Your task to perform on an android device: Open settings on Google Maps Image 0: 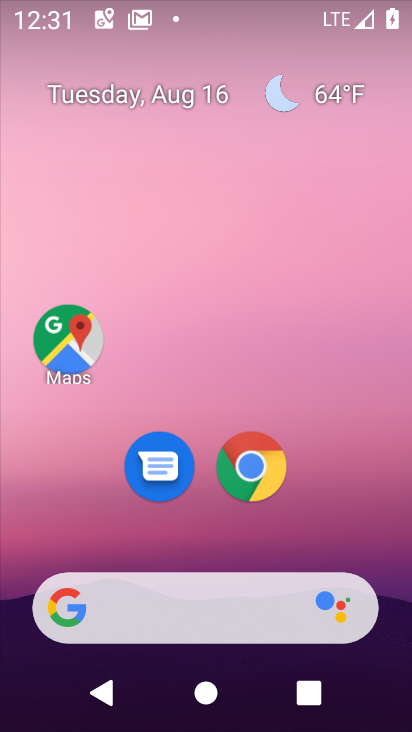
Step 0: drag from (205, 594) to (197, 136)
Your task to perform on an android device: Open settings on Google Maps Image 1: 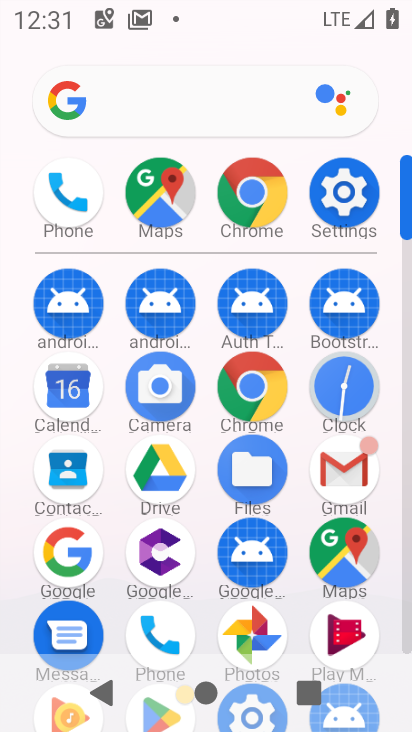
Step 1: click (341, 541)
Your task to perform on an android device: Open settings on Google Maps Image 2: 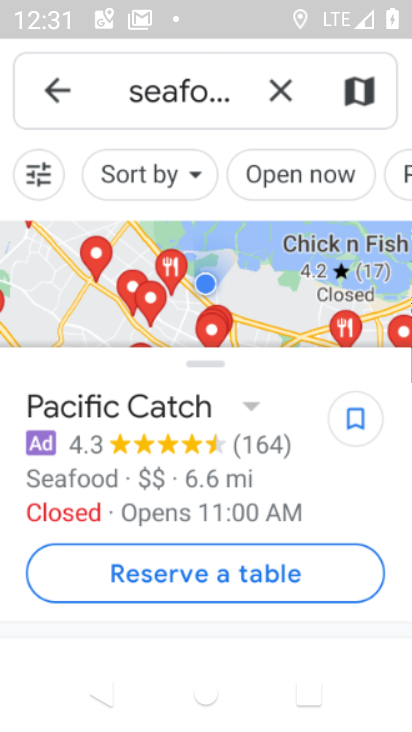
Step 2: click (48, 81)
Your task to perform on an android device: Open settings on Google Maps Image 3: 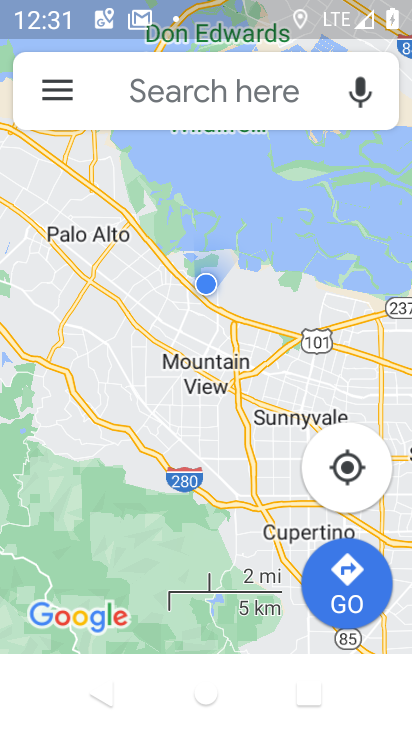
Step 3: click (48, 79)
Your task to perform on an android device: Open settings on Google Maps Image 4: 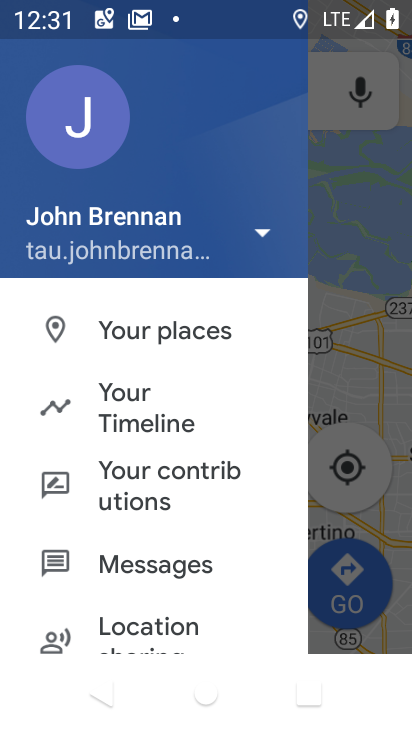
Step 4: drag from (162, 540) to (177, 281)
Your task to perform on an android device: Open settings on Google Maps Image 5: 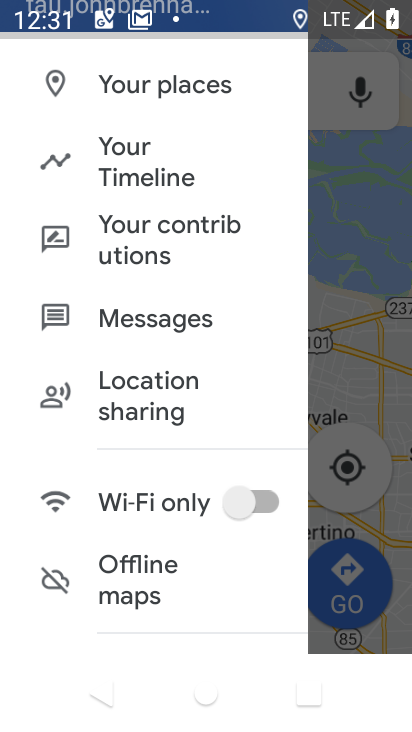
Step 5: drag from (135, 587) to (203, 217)
Your task to perform on an android device: Open settings on Google Maps Image 6: 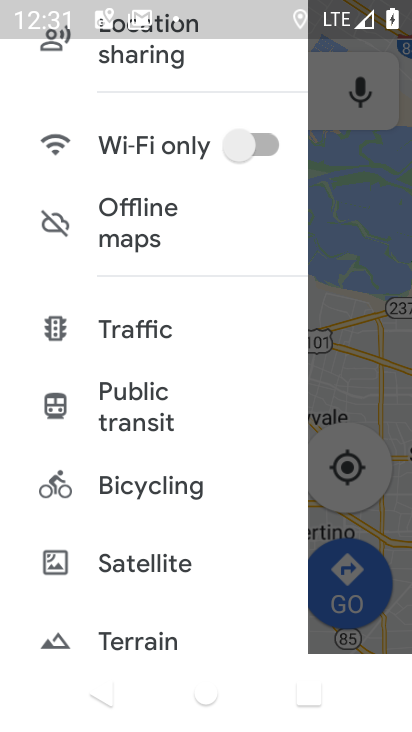
Step 6: drag from (95, 614) to (163, 84)
Your task to perform on an android device: Open settings on Google Maps Image 7: 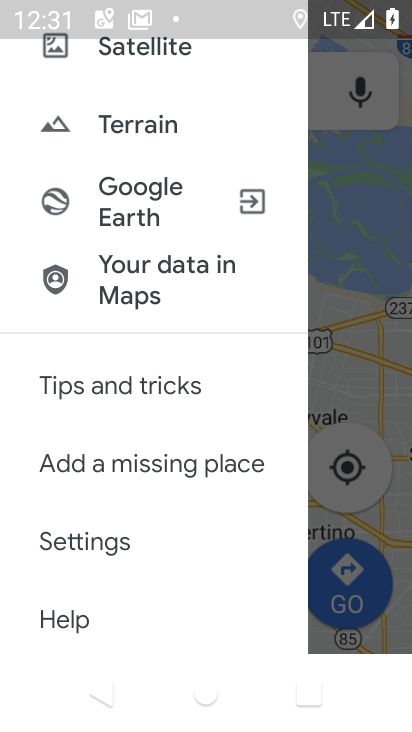
Step 7: click (97, 552)
Your task to perform on an android device: Open settings on Google Maps Image 8: 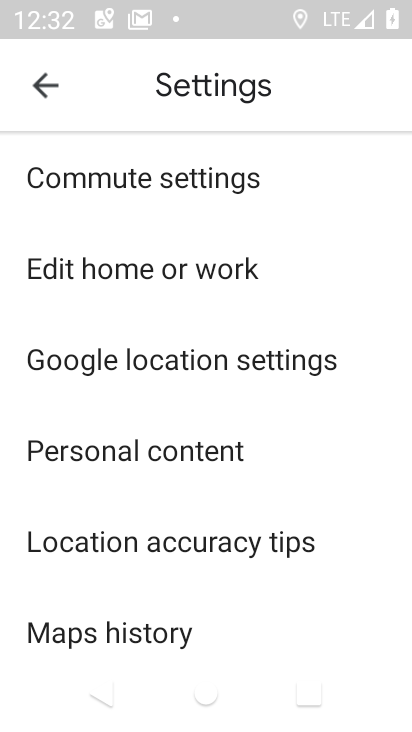
Step 8: task complete